Your task to perform on an android device: What's a good restaurant in Denver? Image 0: 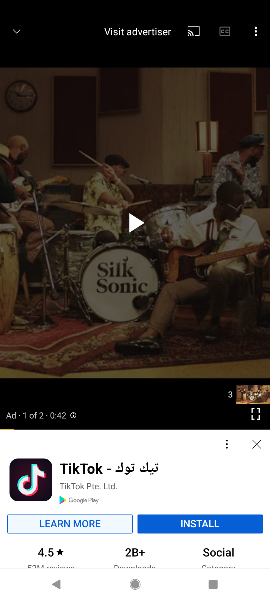
Step 0: press home button
Your task to perform on an android device: What's a good restaurant in Denver? Image 1: 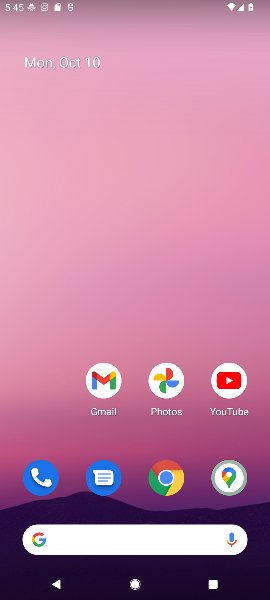
Step 1: click (78, 544)
Your task to perform on an android device: What's a good restaurant in Denver? Image 2: 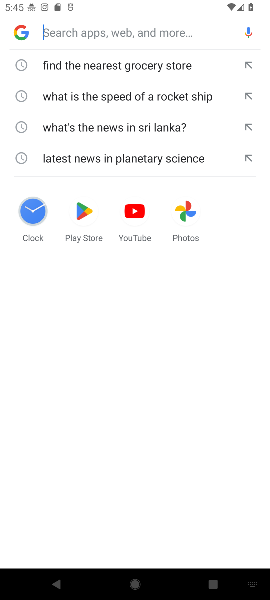
Step 2: type "What's a good restaurant in Denver?"
Your task to perform on an android device: What's a good restaurant in Denver? Image 3: 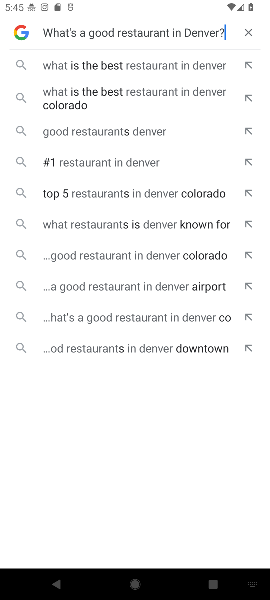
Step 3: click (178, 65)
Your task to perform on an android device: What's a good restaurant in Denver? Image 4: 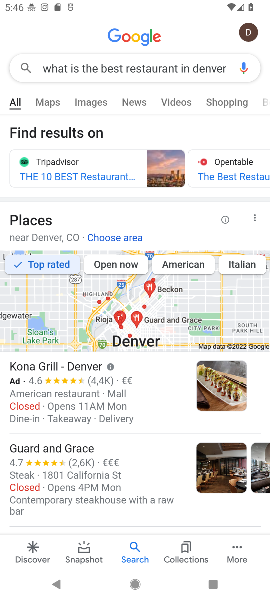
Step 4: task complete